Your task to perform on an android device: set the stopwatch Image 0: 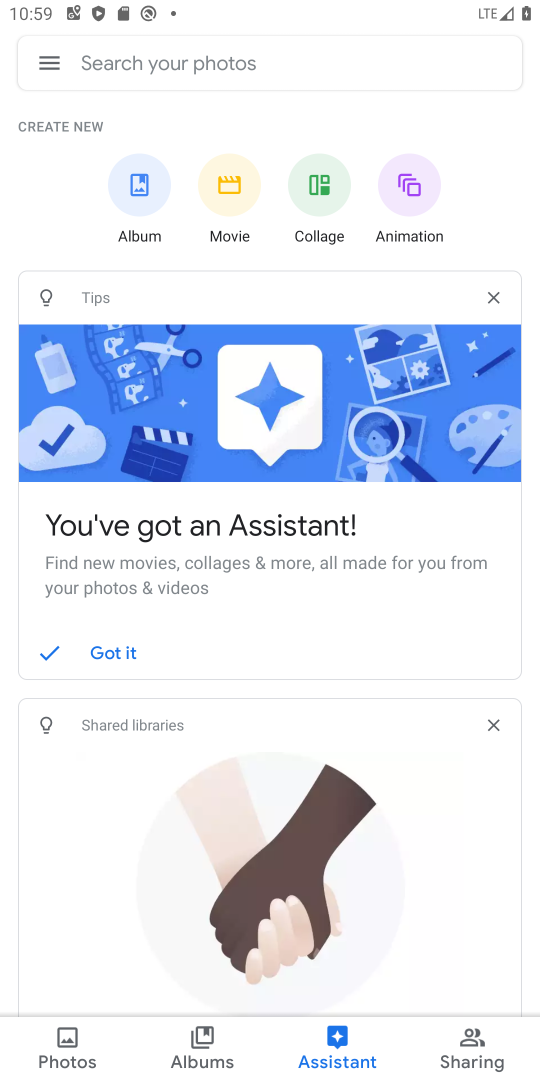
Step 0: press home button
Your task to perform on an android device: set the stopwatch Image 1: 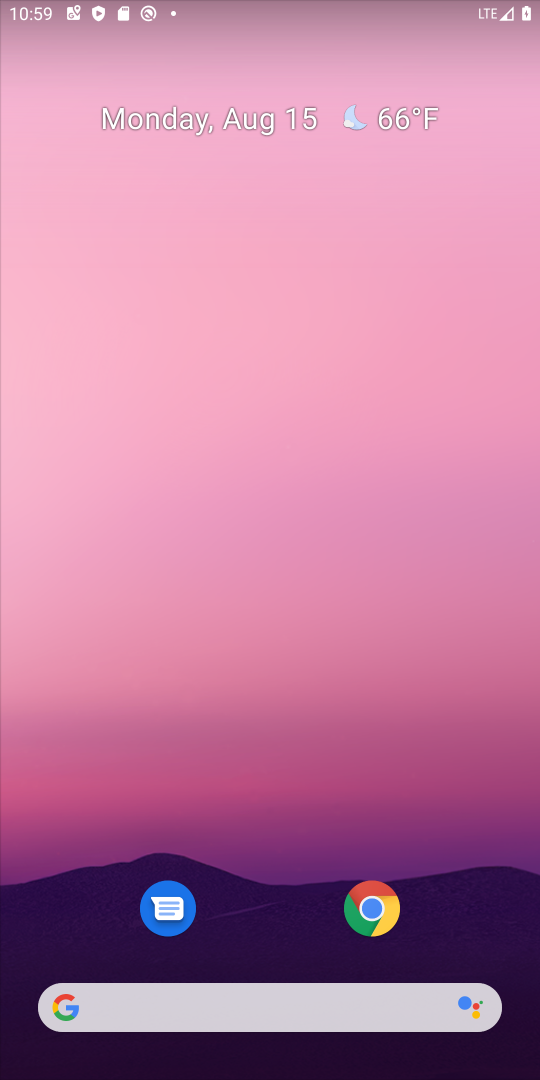
Step 1: drag from (244, 935) to (280, 93)
Your task to perform on an android device: set the stopwatch Image 2: 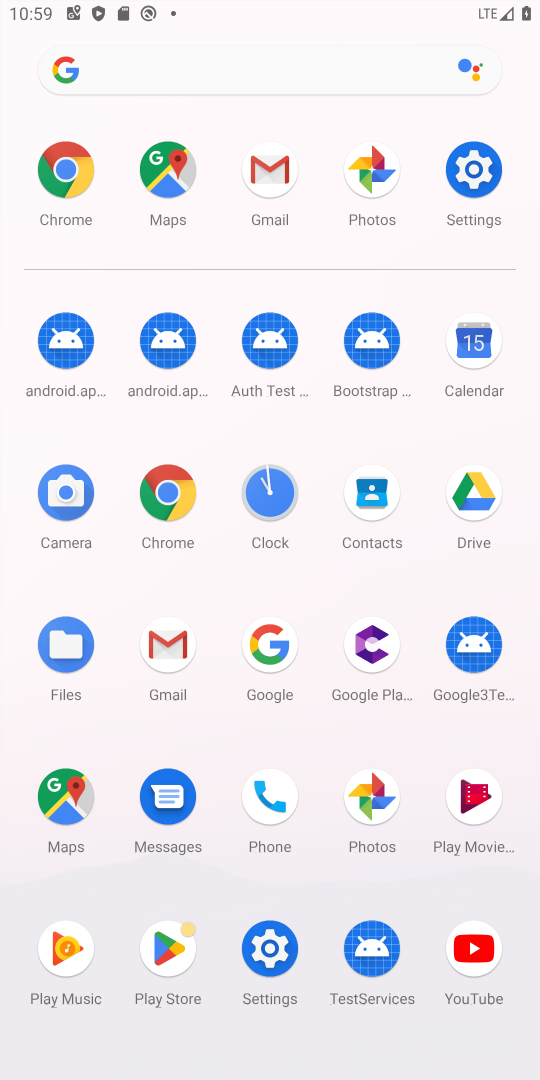
Step 2: click (280, 509)
Your task to perform on an android device: set the stopwatch Image 3: 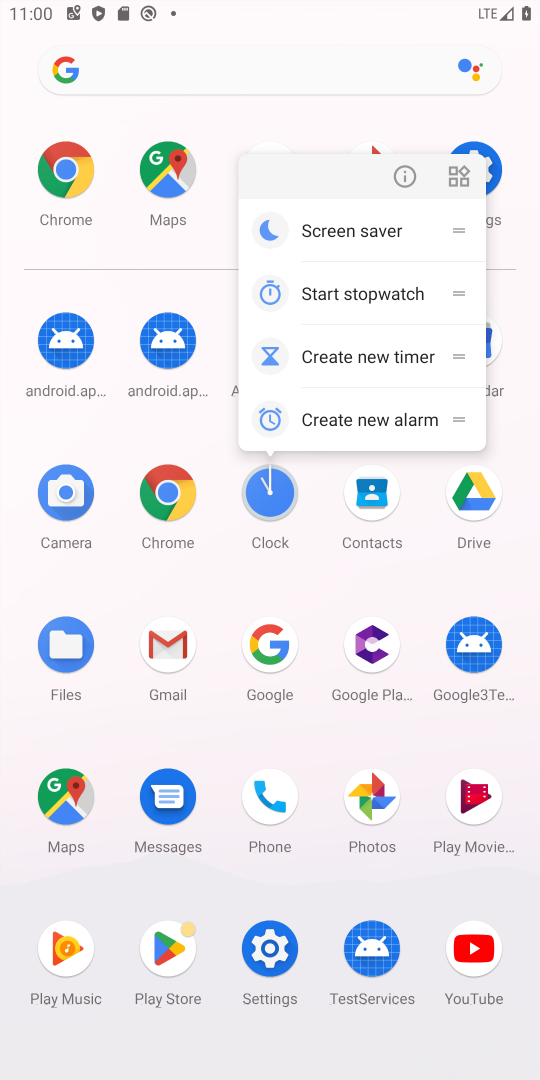
Step 3: click (266, 488)
Your task to perform on an android device: set the stopwatch Image 4: 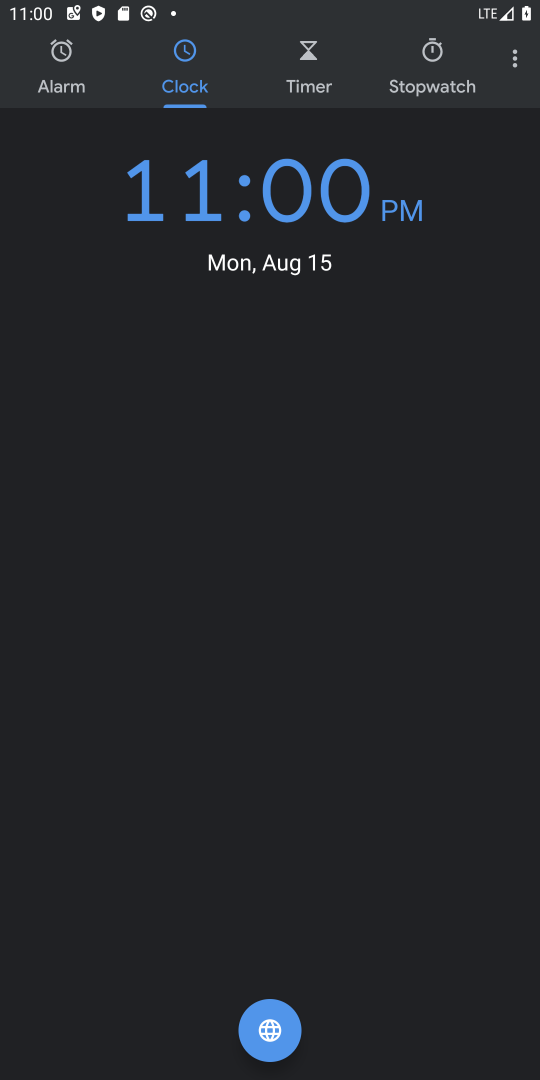
Step 4: click (266, 488)
Your task to perform on an android device: set the stopwatch Image 5: 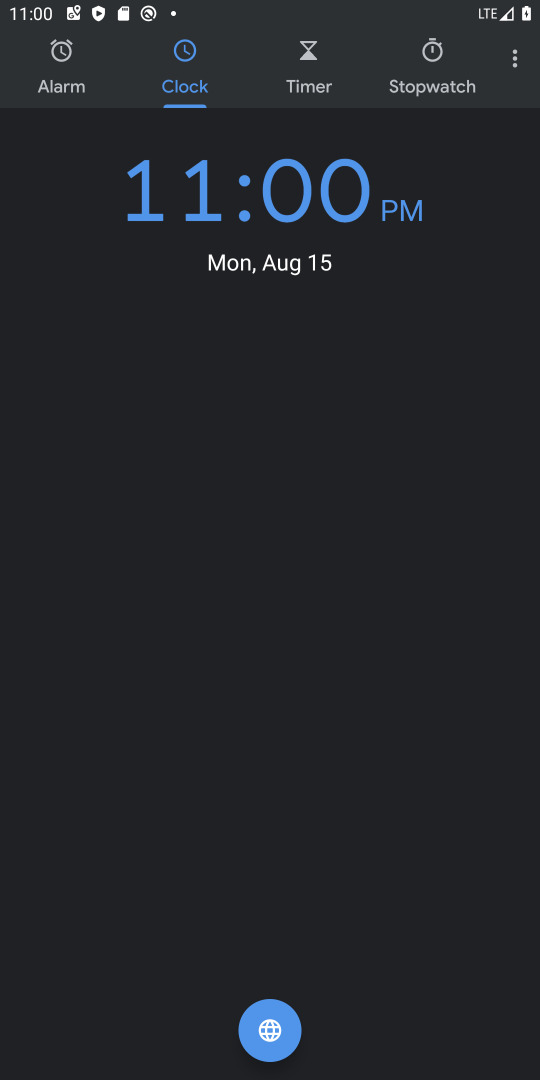
Step 5: click (443, 81)
Your task to perform on an android device: set the stopwatch Image 6: 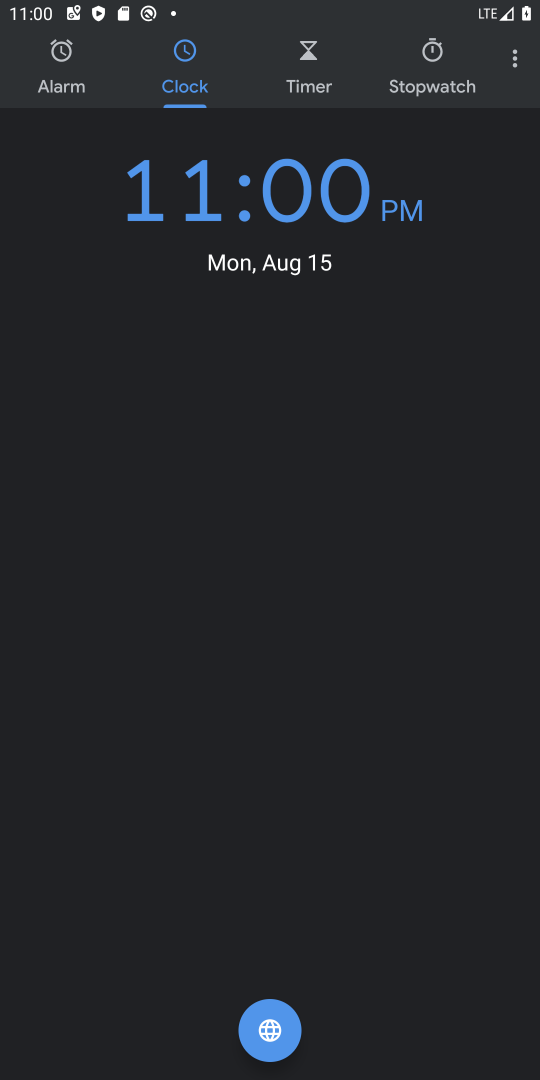
Step 6: click (443, 81)
Your task to perform on an android device: set the stopwatch Image 7: 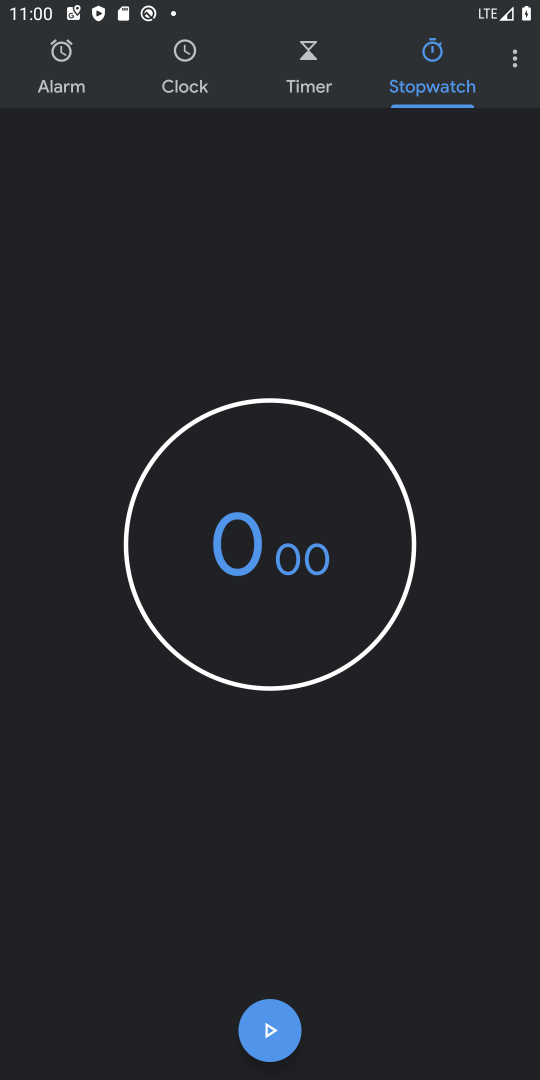
Step 7: click (237, 1032)
Your task to perform on an android device: set the stopwatch Image 8: 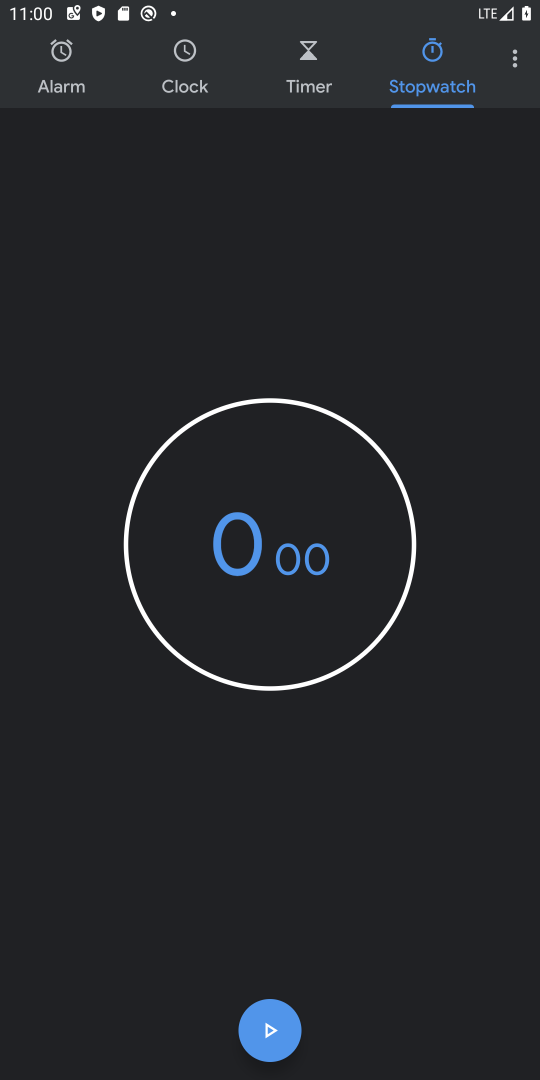
Step 8: click (237, 1032)
Your task to perform on an android device: set the stopwatch Image 9: 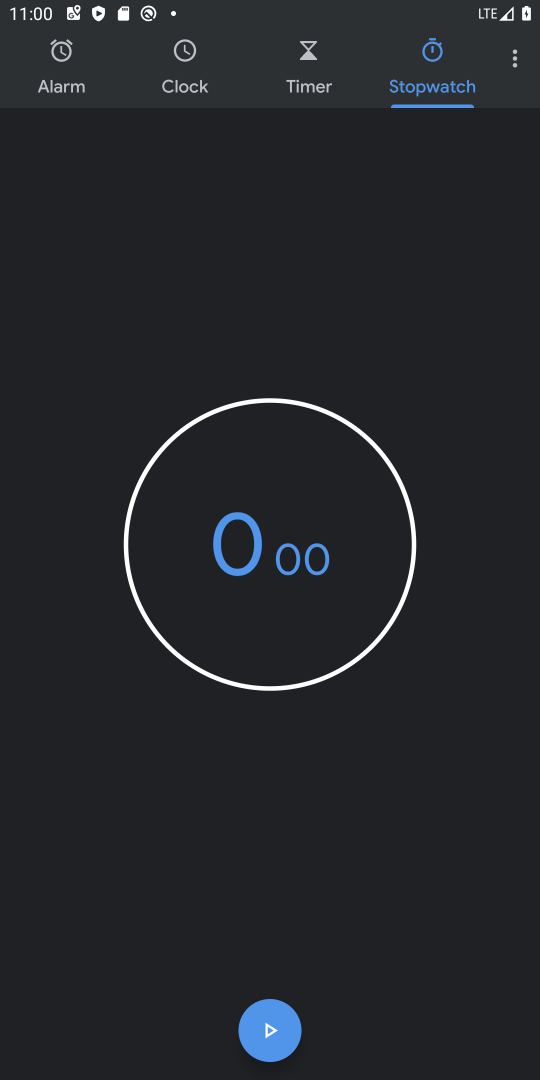
Step 9: click (237, 1032)
Your task to perform on an android device: set the stopwatch Image 10: 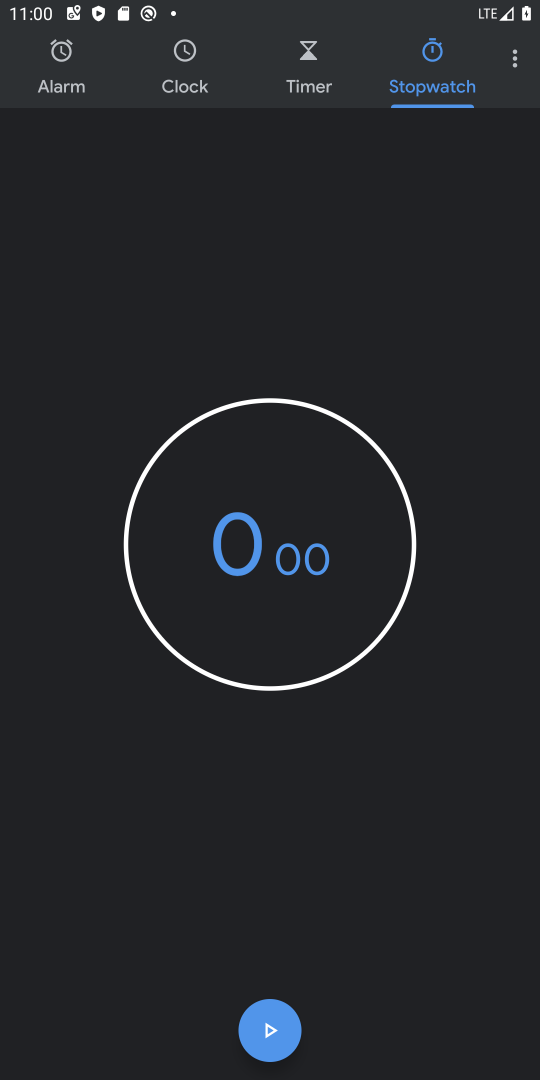
Step 10: click (281, 1035)
Your task to perform on an android device: set the stopwatch Image 11: 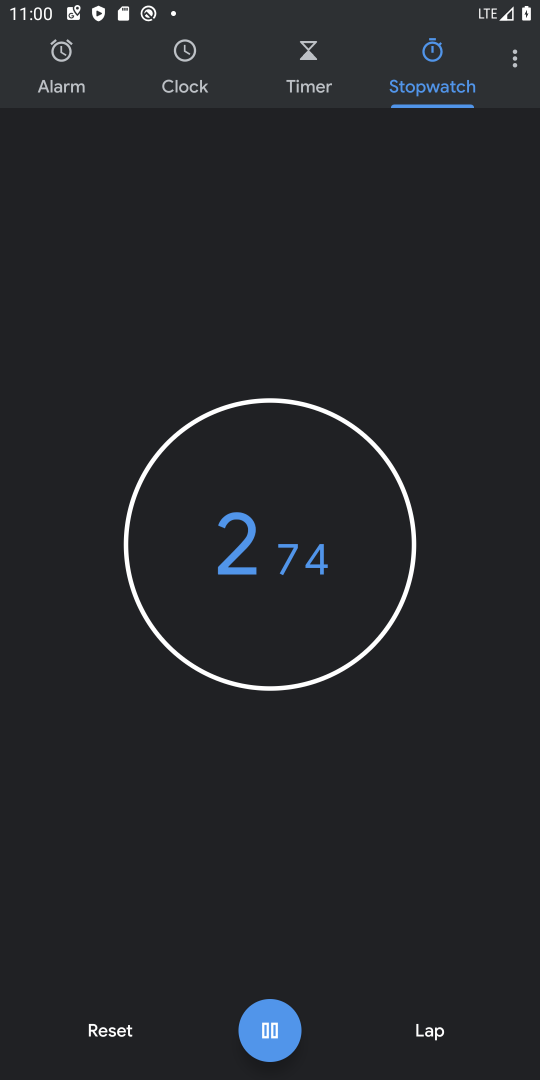
Step 11: task complete